Your task to perform on an android device: Go to calendar. Show me events next week Image 0: 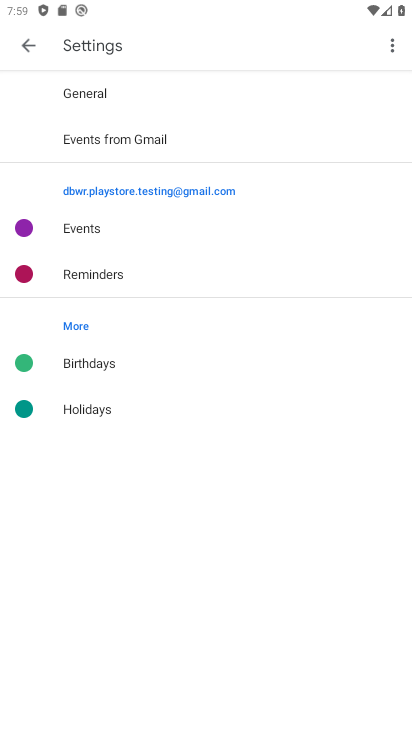
Step 0: press home button
Your task to perform on an android device: Go to calendar. Show me events next week Image 1: 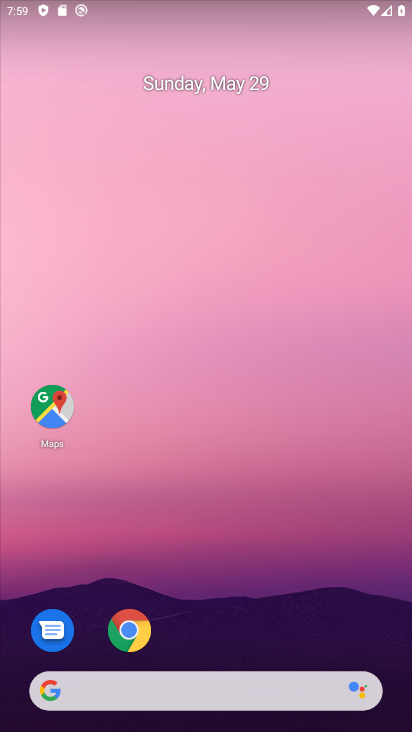
Step 1: drag from (198, 675) to (136, 5)
Your task to perform on an android device: Go to calendar. Show me events next week Image 2: 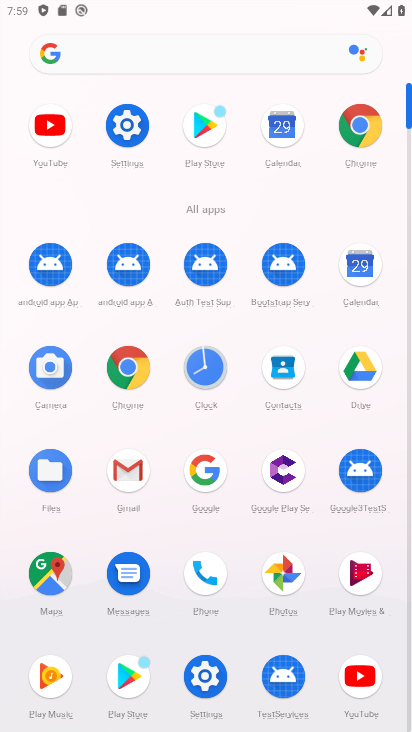
Step 2: click (358, 275)
Your task to perform on an android device: Go to calendar. Show me events next week Image 3: 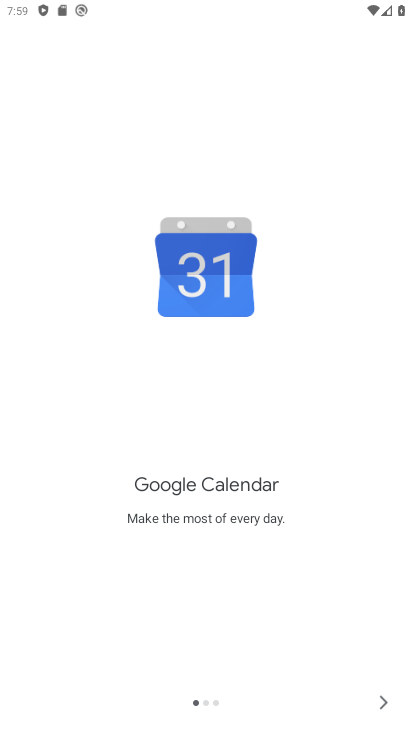
Step 3: click (382, 707)
Your task to perform on an android device: Go to calendar. Show me events next week Image 4: 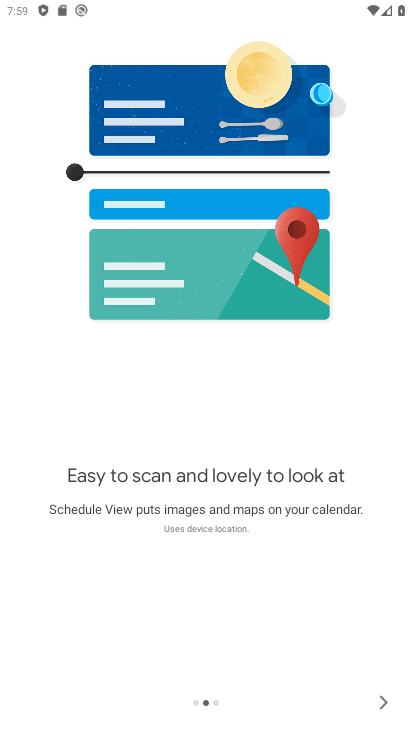
Step 4: click (382, 707)
Your task to perform on an android device: Go to calendar. Show me events next week Image 5: 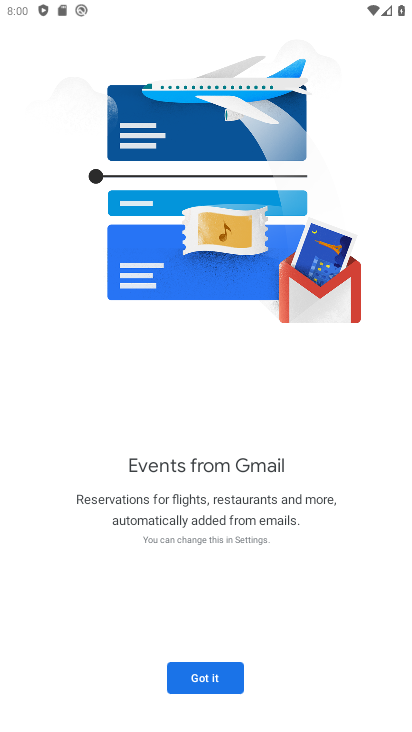
Step 5: click (382, 707)
Your task to perform on an android device: Go to calendar. Show me events next week Image 6: 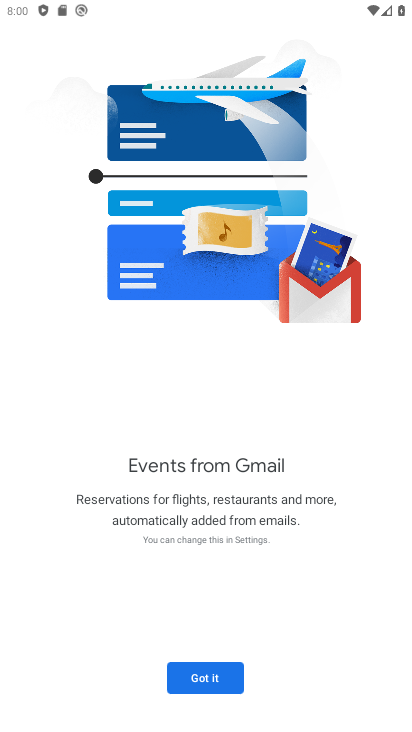
Step 6: click (204, 673)
Your task to perform on an android device: Go to calendar. Show me events next week Image 7: 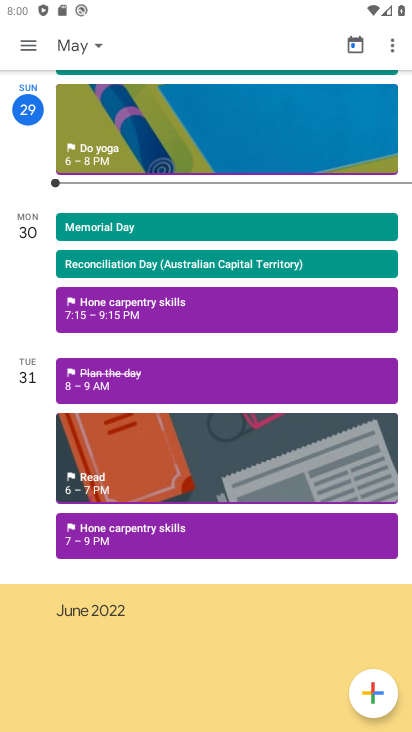
Step 7: click (21, 37)
Your task to perform on an android device: Go to calendar. Show me events next week Image 8: 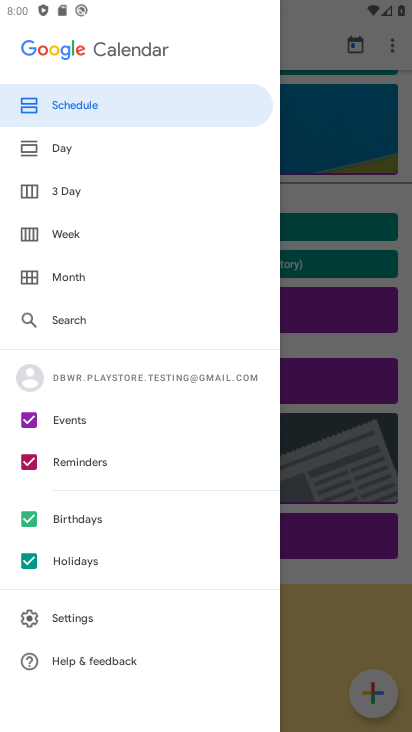
Step 8: drag from (76, 422) to (49, 170)
Your task to perform on an android device: Go to calendar. Show me events next week Image 9: 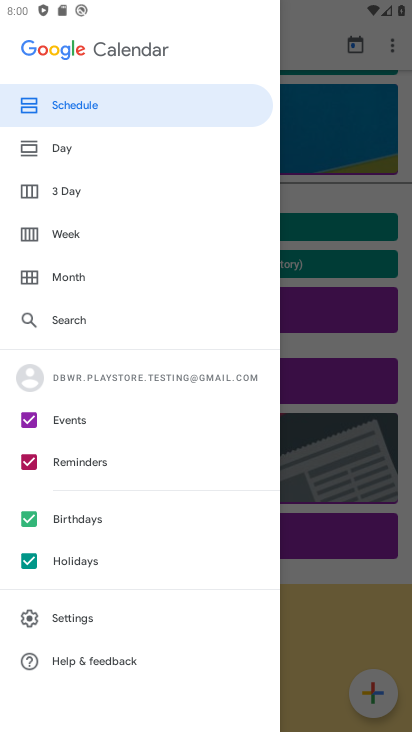
Step 9: click (86, 230)
Your task to perform on an android device: Go to calendar. Show me events next week Image 10: 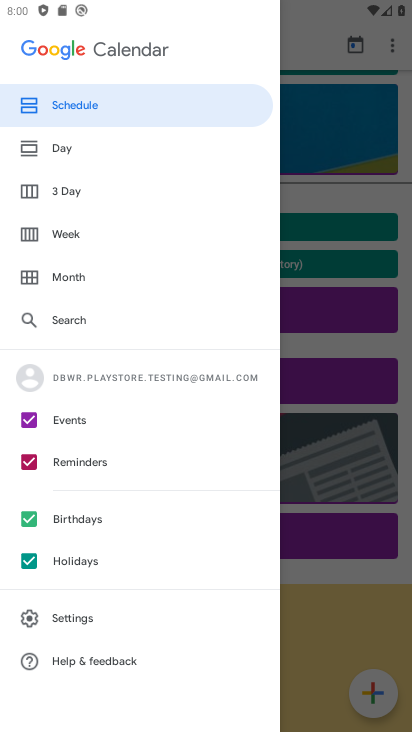
Step 10: click (79, 226)
Your task to perform on an android device: Go to calendar. Show me events next week Image 11: 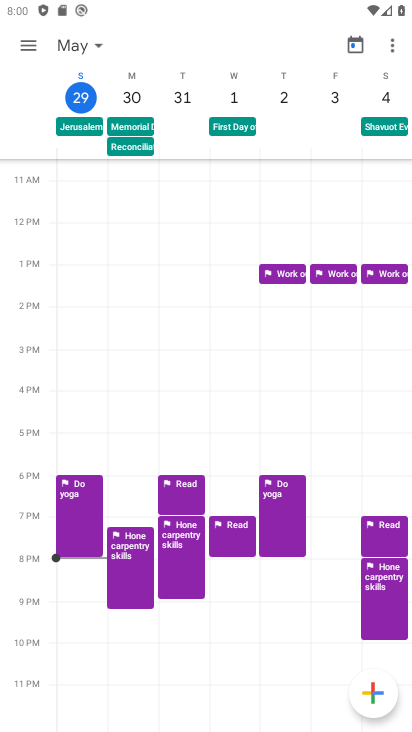
Step 11: task complete